Your task to perform on an android device: Open the web browser Image 0: 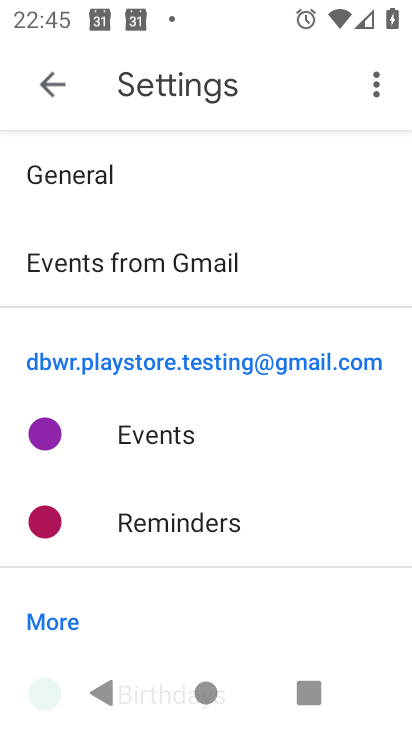
Step 0: press home button
Your task to perform on an android device: Open the web browser Image 1: 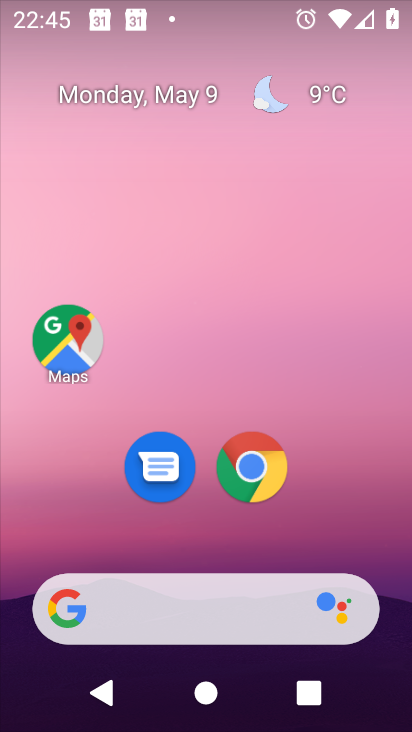
Step 1: click (265, 470)
Your task to perform on an android device: Open the web browser Image 2: 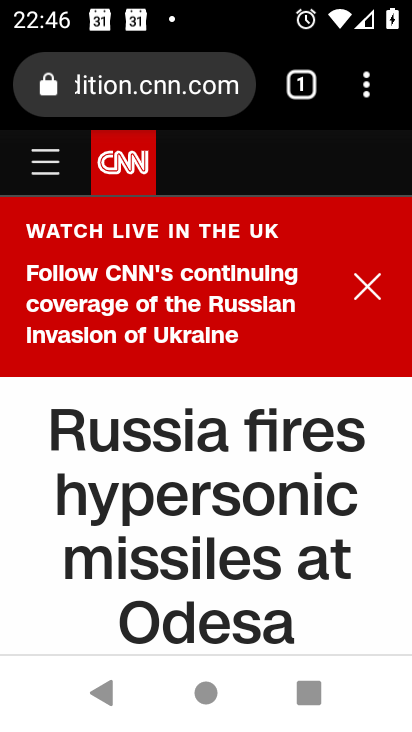
Step 2: task complete